Your task to perform on an android device: toggle javascript in the chrome app Image 0: 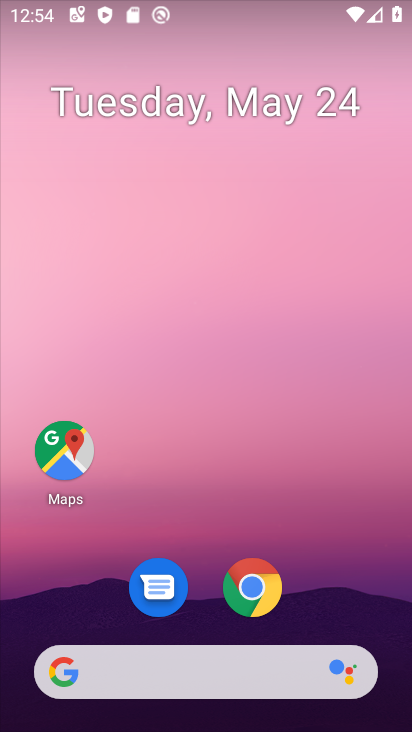
Step 0: click (291, 591)
Your task to perform on an android device: toggle javascript in the chrome app Image 1: 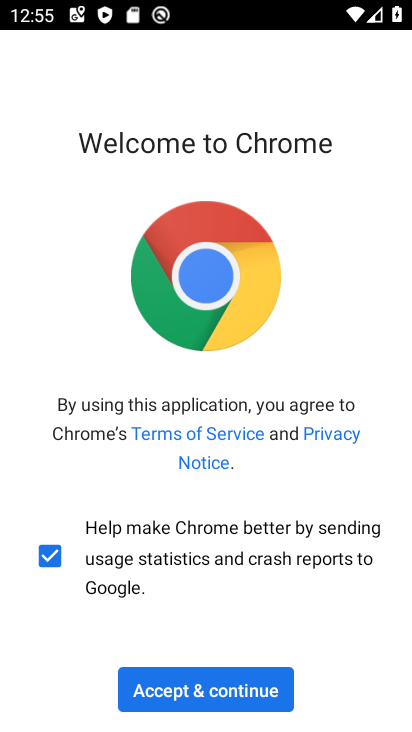
Step 1: click (219, 680)
Your task to perform on an android device: toggle javascript in the chrome app Image 2: 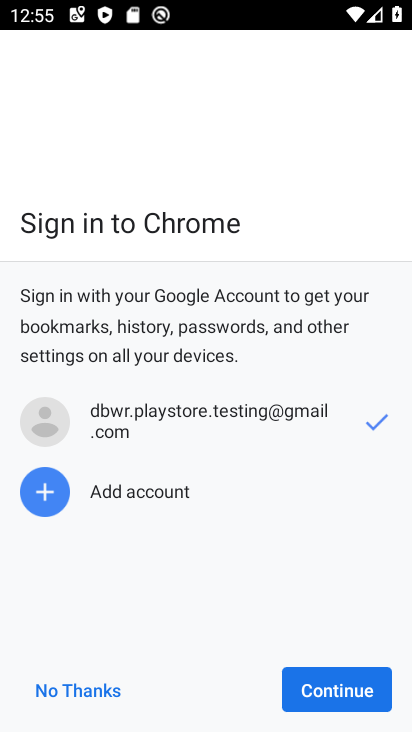
Step 2: click (363, 680)
Your task to perform on an android device: toggle javascript in the chrome app Image 3: 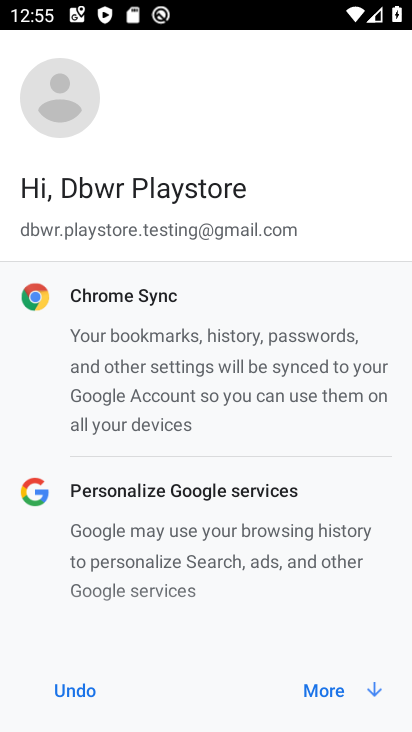
Step 3: click (363, 680)
Your task to perform on an android device: toggle javascript in the chrome app Image 4: 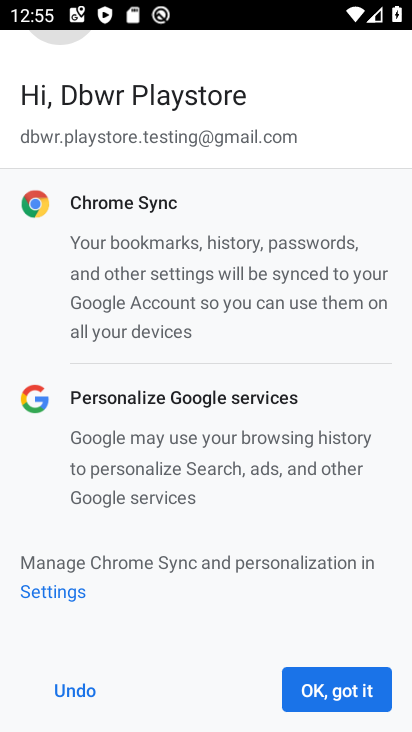
Step 4: click (363, 680)
Your task to perform on an android device: toggle javascript in the chrome app Image 5: 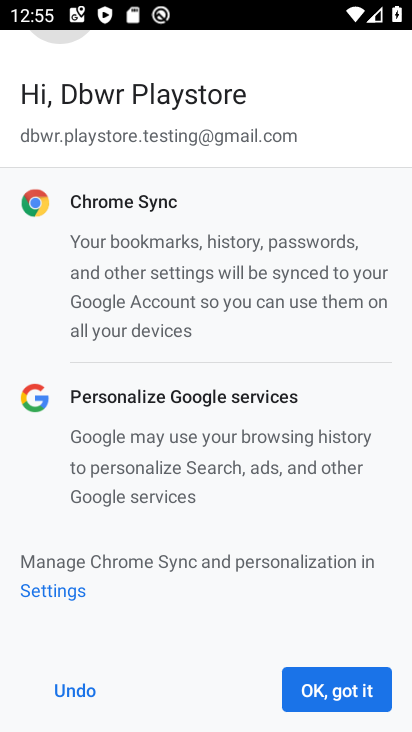
Step 5: click (363, 680)
Your task to perform on an android device: toggle javascript in the chrome app Image 6: 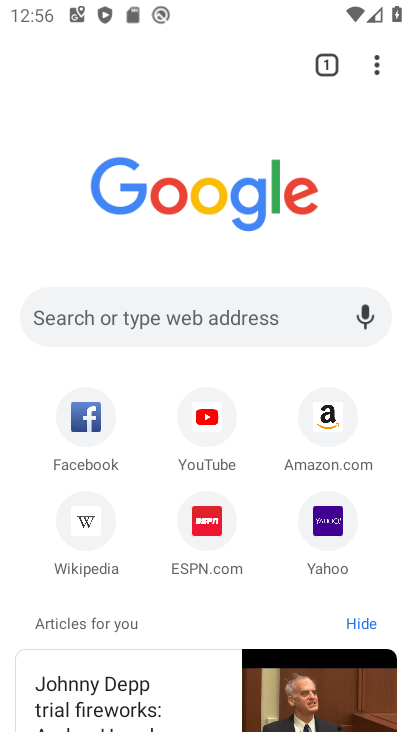
Step 6: task complete